Your task to perform on an android device: Open location settings Image 0: 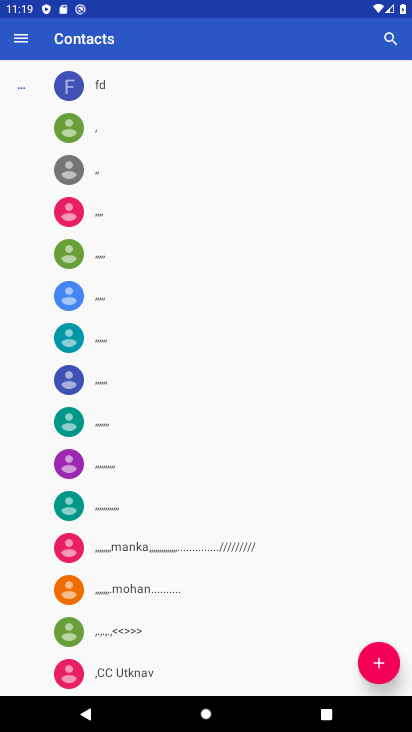
Step 0: press home button
Your task to perform on an android device: Open location settings Image 1: 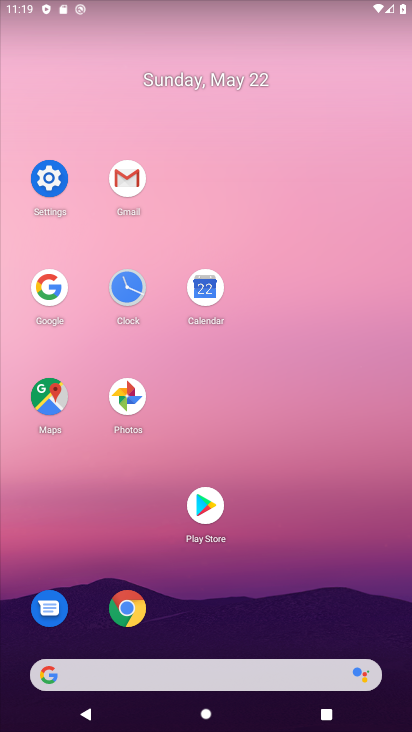
Step 1: click (58, 169)
Your task to perform on an android device: Open location settings Image 2: 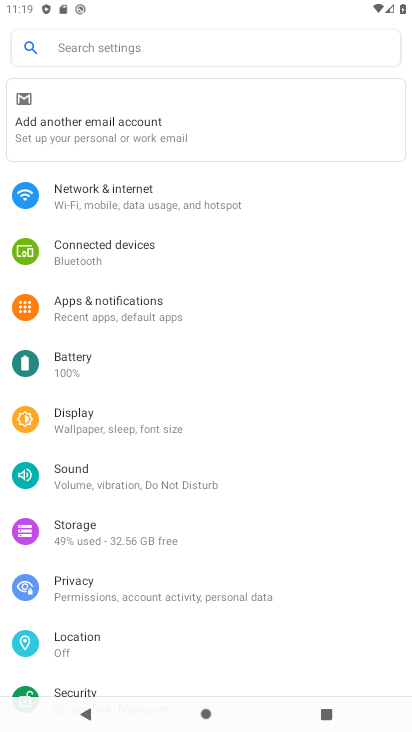
Step 2: click (132, 654)
Your task to perform on an android device: Open location settings Image 3: 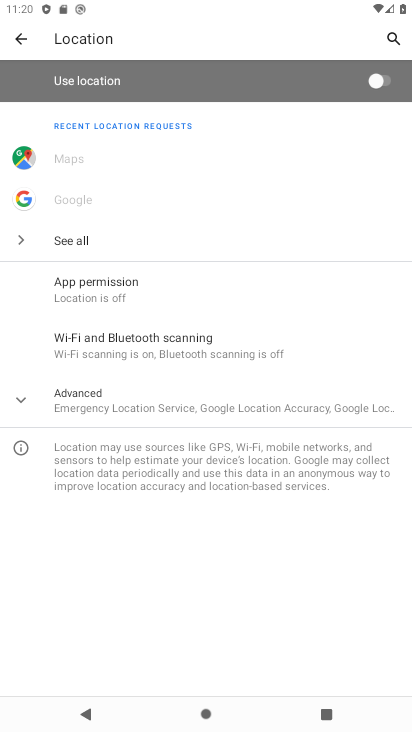
Step 3: task complete